Your task to perform on an android device: manage bookmarks in the chrome app Image 0: 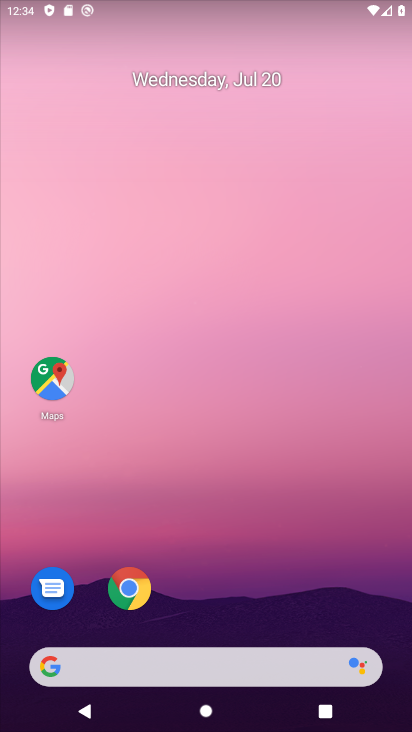
Step 0: press home button
Your task to perform on an android device: manage bookmarks in the chrome app Image 1: 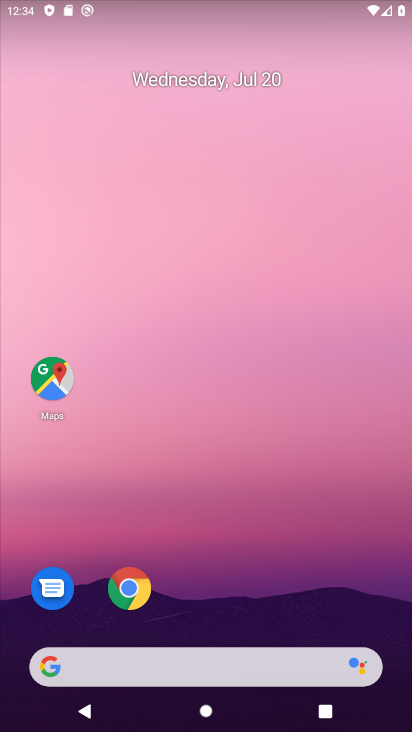
Step 1: click (108, 596)
Your task to perform on an android device: manage bookmarks in the chrome app Image 2: 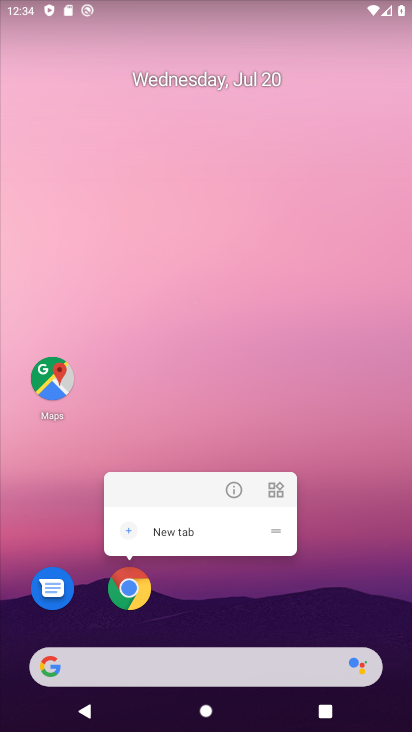
Step 2: click (131, 586)
Your task to perform on an android device: manage bookmarks in the chrome app Image 3: 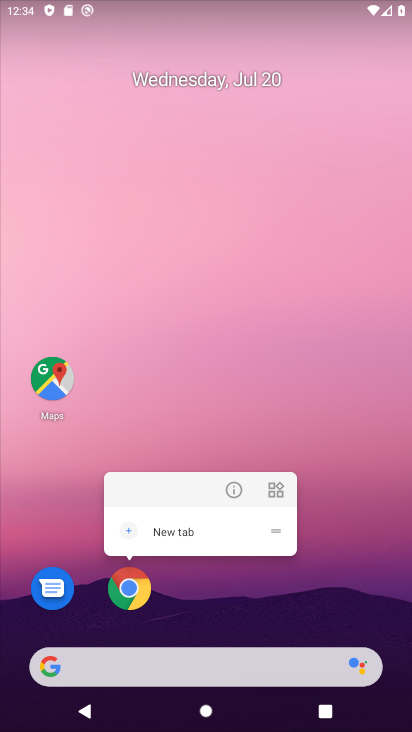
Step 3: click (131, 586)
Your task to perform on an android device: manage bookmarks in the chrome app Image 4: 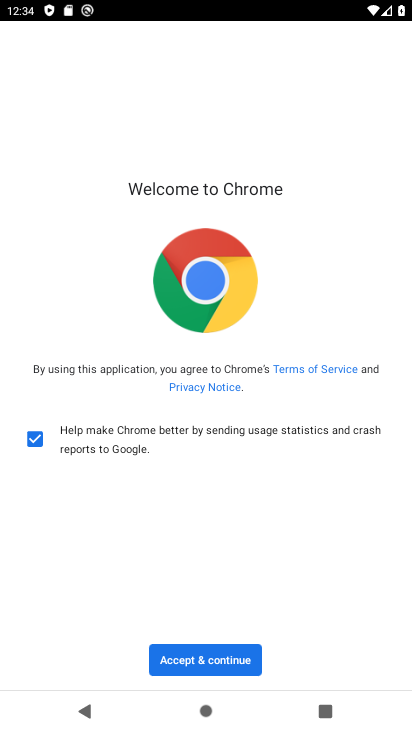
Step 4: click (224, 654)
Your task to perform on an android device: manage bookmarks in the chrome app Image 5: 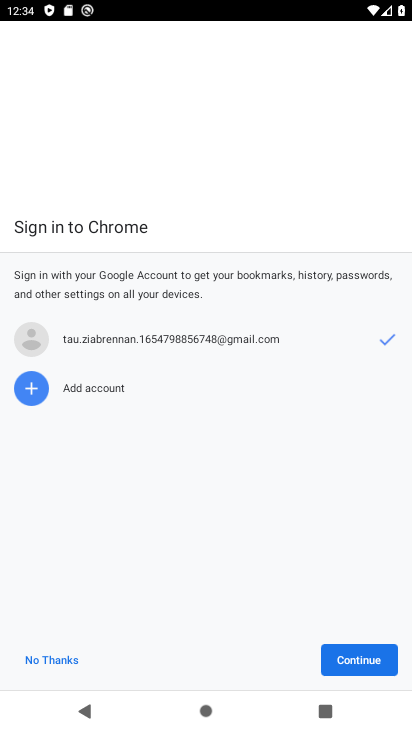
Step 5: click (22, 653)
Your task to perform on an android device: manage bookmarks in the chrome app Image 6: 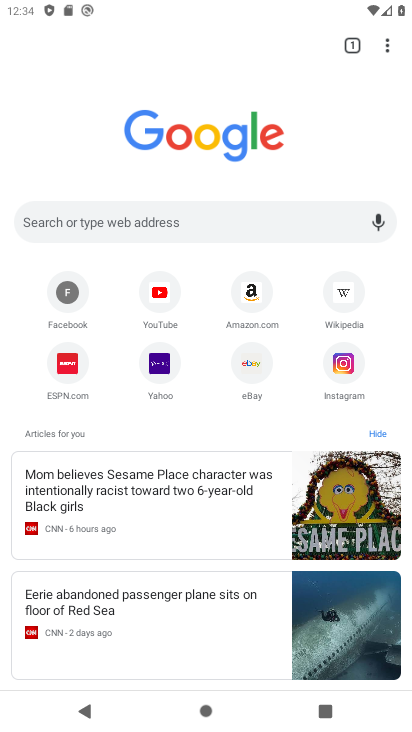
Step 6: click (386, 40)
Your task to perform on an android device: manage bookmarks in the chrome app Image 7: 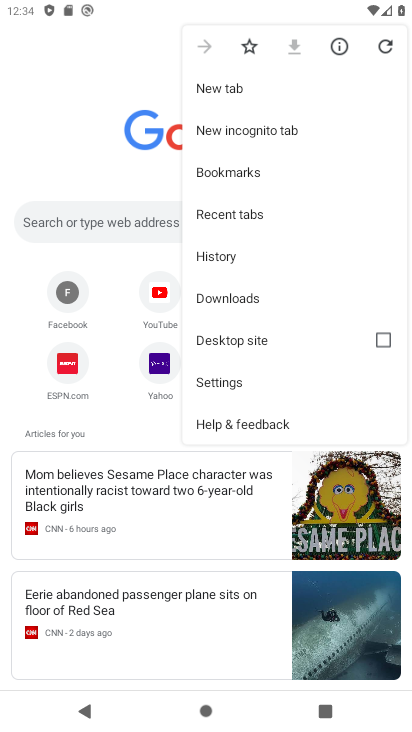
Step 7: click (245, 169)
Your task to perform on an android device: manage bookmarks in the chrome app Image 8: 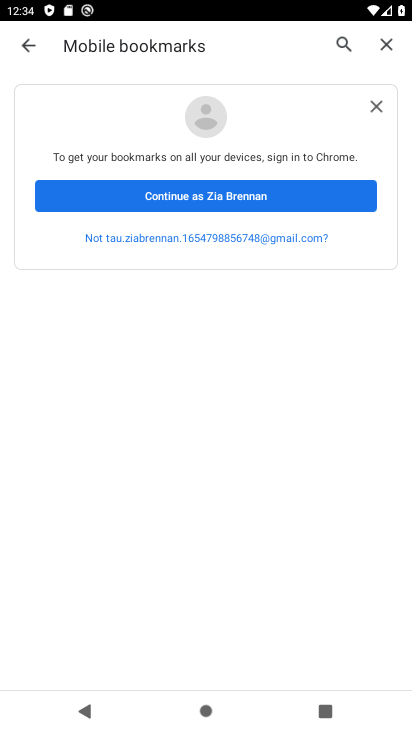
Step 8: click (380, 109)
Your task to perform on an android device: manage bookmarks in the chrome app Image 9: 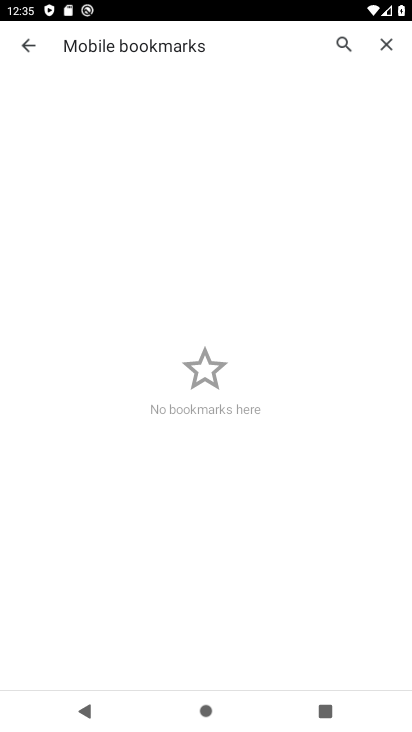
Step 9: task complete